Your task to perform on an android device: Go to settings Image 0: 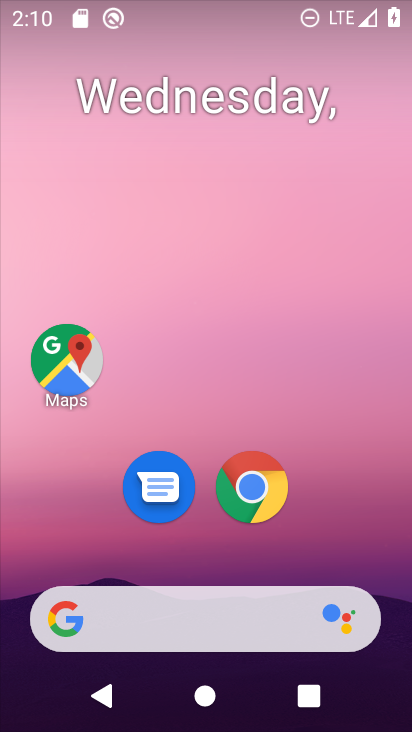
Step 0: drag from (396, 611) to (264, 95)
Your task to perform on an android device: Go to settings Image 1: 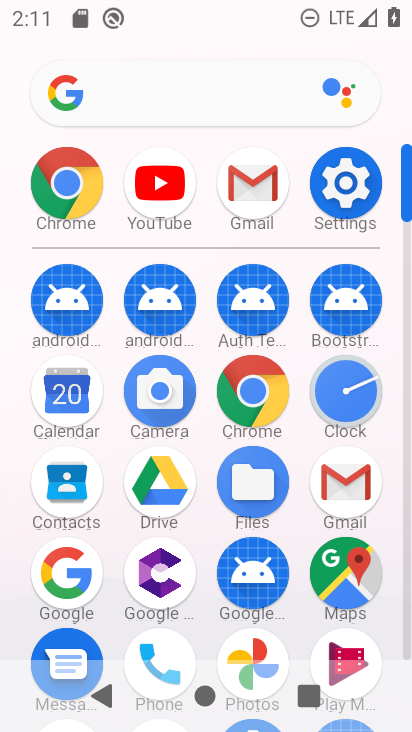
Step 1: click (337, 189)
Your task to perform on an android device: Go to settings Image 2: 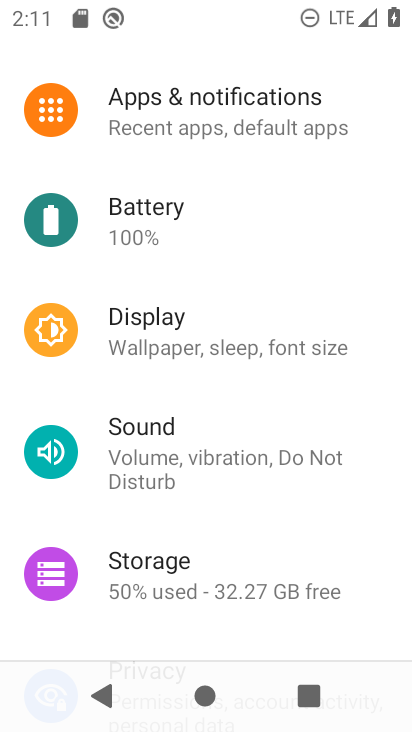
Step 2: task complete